Your task to perform on an android device: Check the weather Image 0: 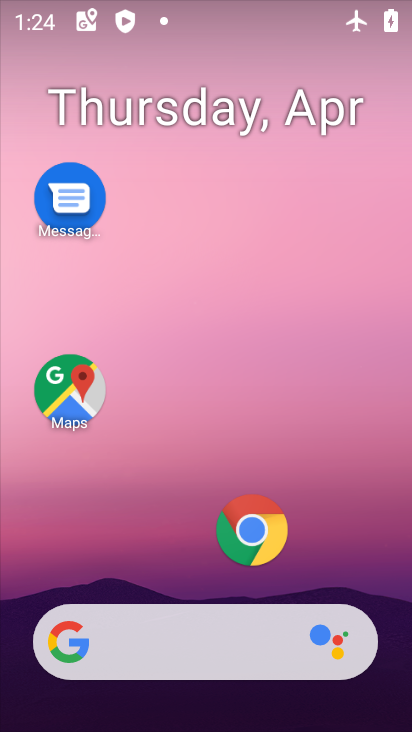
Step 0: drag from (204, 573) to (391, 436)
Your task to perform on an android device: Check the weather Image 1: 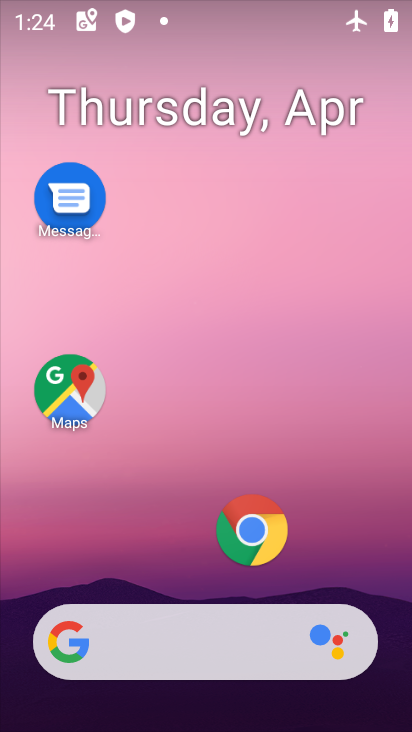
Step 1: click (200, 657)
Your task to perform on an android device: Check the weather Image 2: 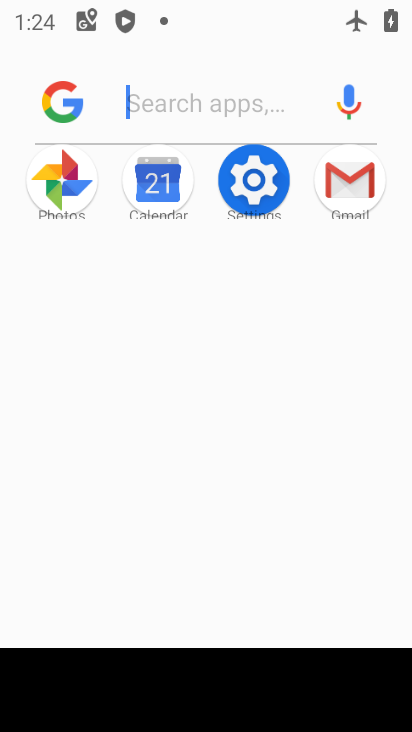
Step 2: task complete